Your task to perform on an android device: Search for seafood restaurants on Google Maps Image 0: 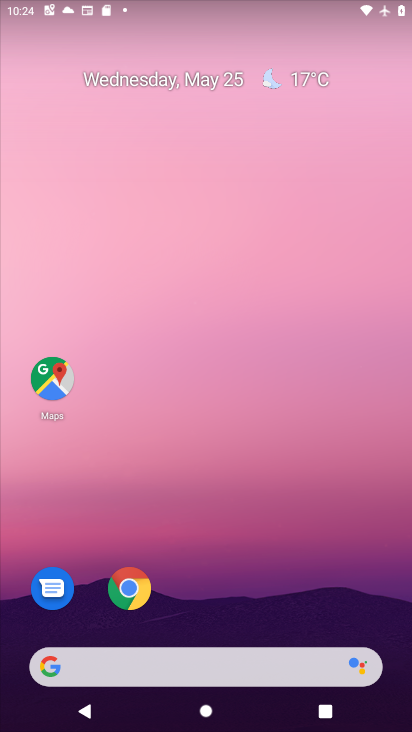
Step 0: drag from (306, 588) to (312, 201)
Your task to perform on an android device: Search for seafood restaurants on Google Maps Image 1: 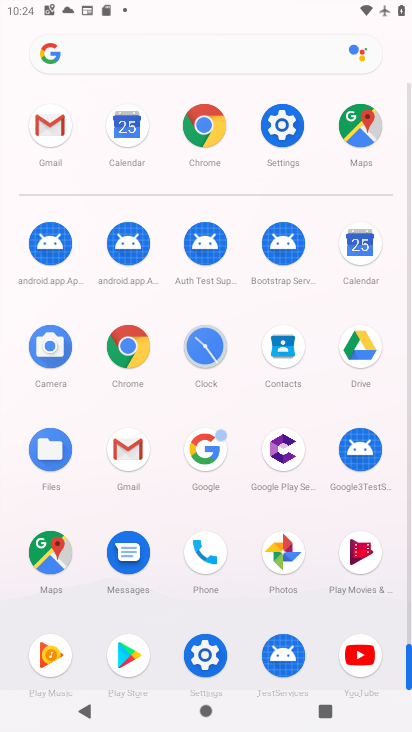
Step 1: click (53, 567)
Your task to perform on an android device: Search for seafood restaurants on Google Maps Image 2: 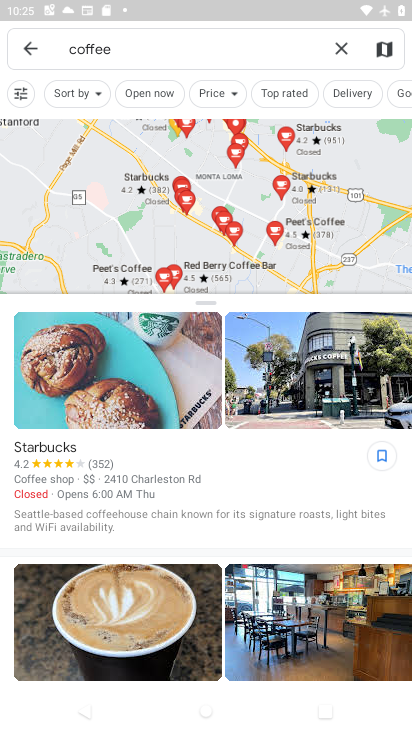
Step 2: click (342, 50)
Your task to perform on an android device: Search for seafood restaurants on Google Maps Image 3: 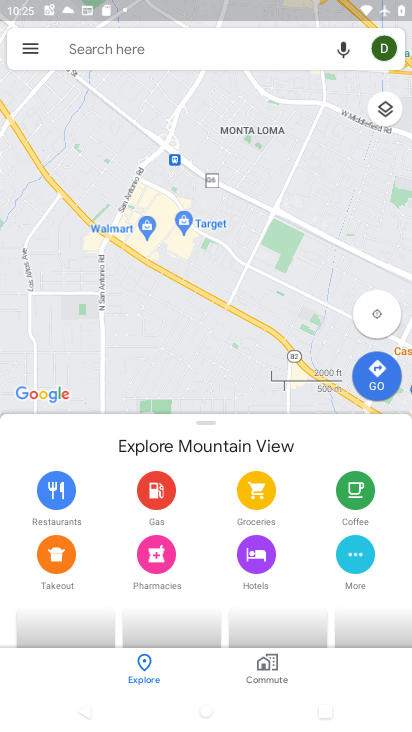
Step 3: click (292, 54)
Your task to perform on an android device: Search for seafood restaurants on Google Maps Image 4: 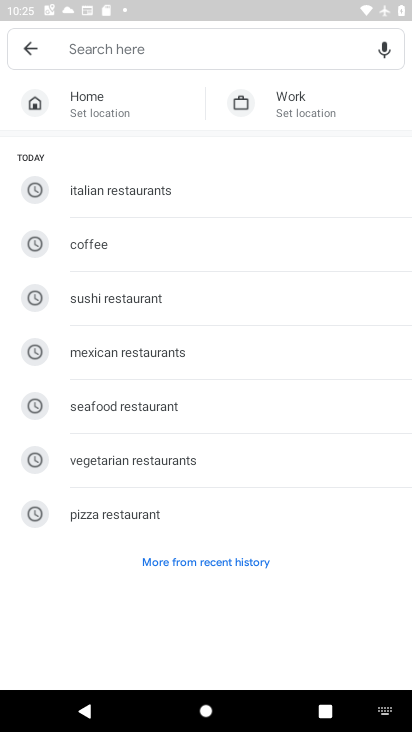
Step 4: type "seafood restaurants"
Your task to perform on an android device: Search for seafood restaurants on Google Maps Image 5: 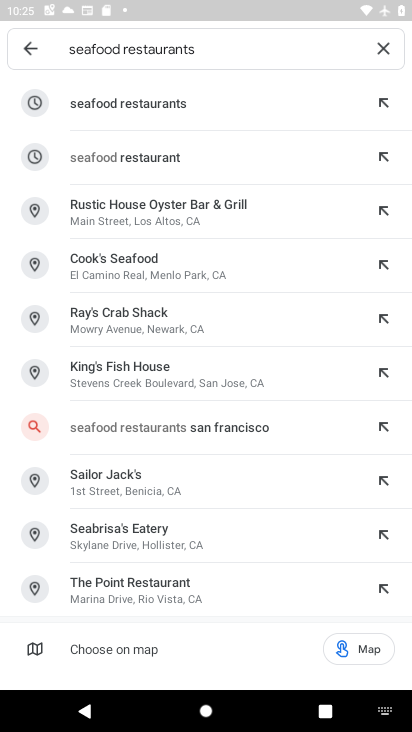
Step 5: click (208, 105)
Your task to perform on an android device: Search for seafood restaurants on Google Maps Image 6: 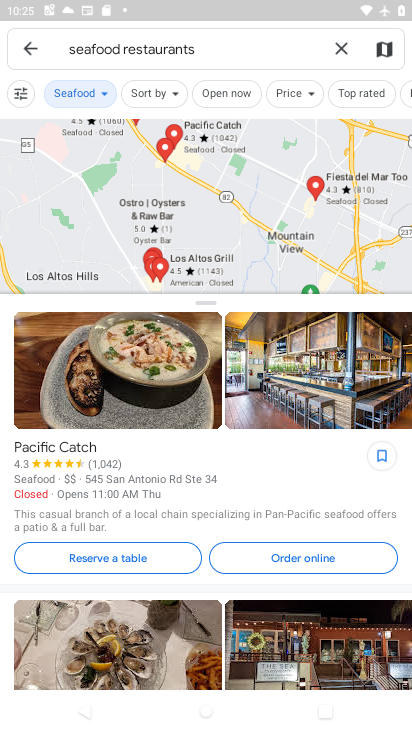
Step 6: task complete